Your task to perform on an android device: open a bookmark in the chrome app Image 0: 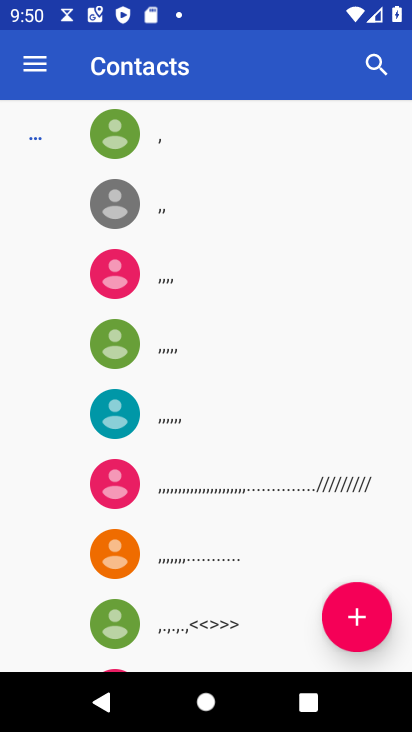
Step 0: press back button
Your task to perform on an android device: open a bookmark in the chrome app Image 1: 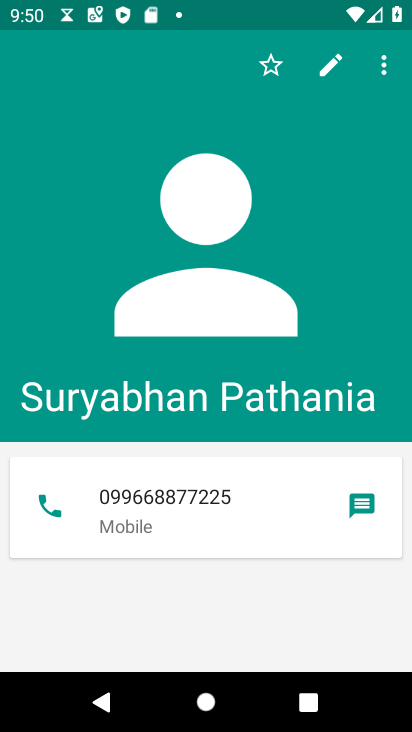
Step 1: press back button
Your task to perform on an android device: open a bookmark in the chrome app Image 2: 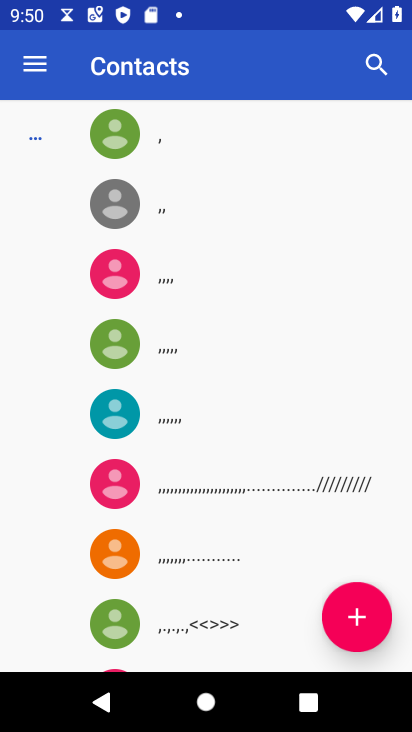
Step 2: press back button
Your task to perform on an android device: open a bookmark in the chrome app Image 3: 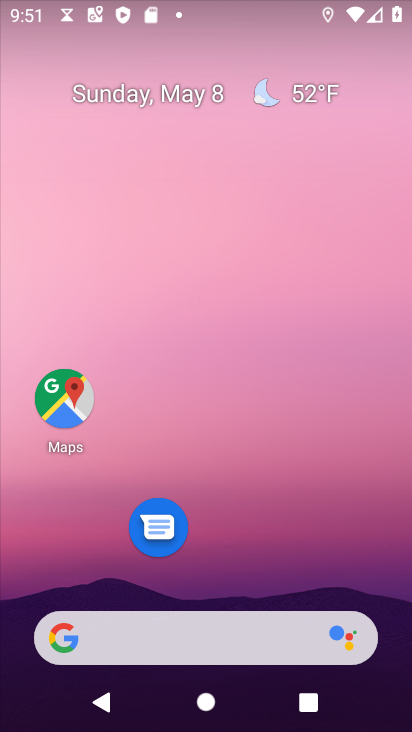
Step 3: drag from (262, 592) to (204, 65)
Your task to perform on an android device: open a bookmark in the chrome app Image 4: 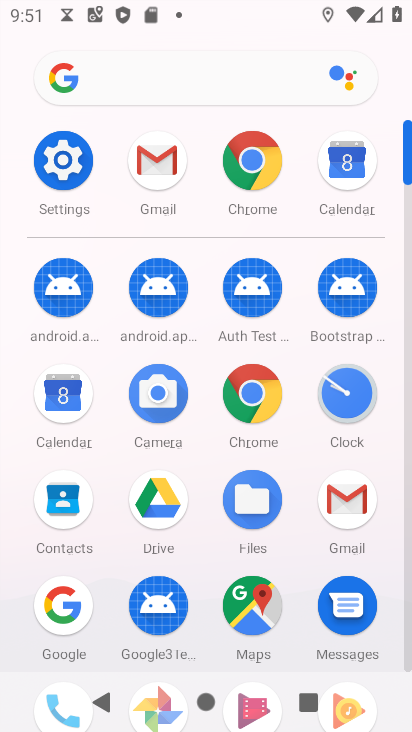
Step 4: click (252, 162)
Your task to perform on an android device: open a bookmark in the chrome app Image 5: 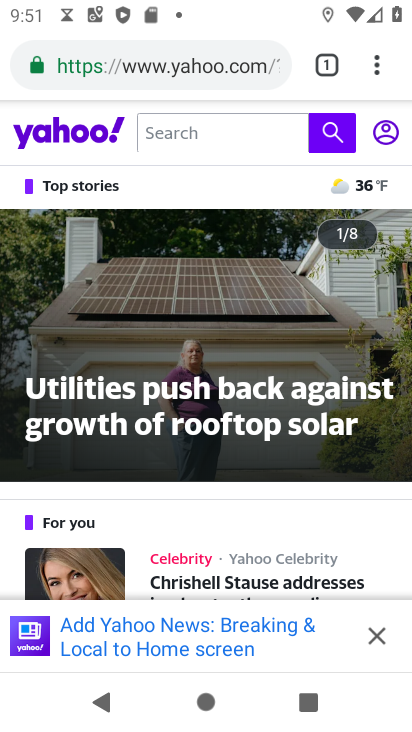
Step 5: click (376, 66)
Your task to perform on an android device: open a bookmark in the chrome app Image 6: 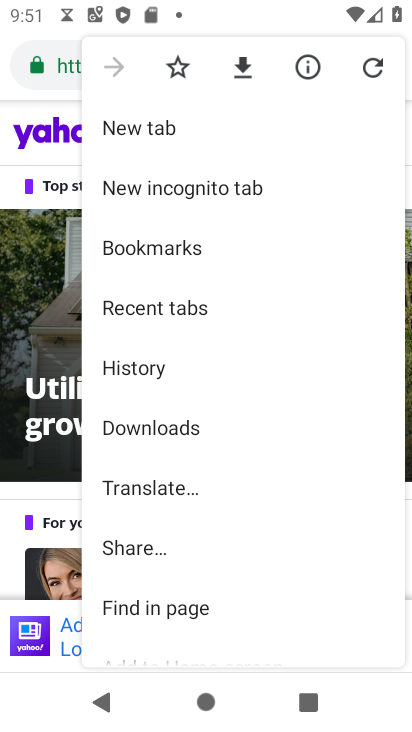
Step 6: click (195, 247)
Your task to perform on an android device: open a bookmark in the chrome app Image 7: 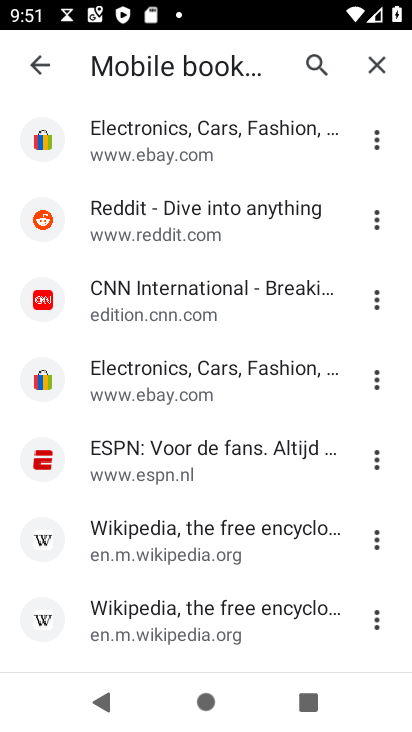
Step 7: task complete